Your task to perform on an android device: Turn on the flashlight Image 0: 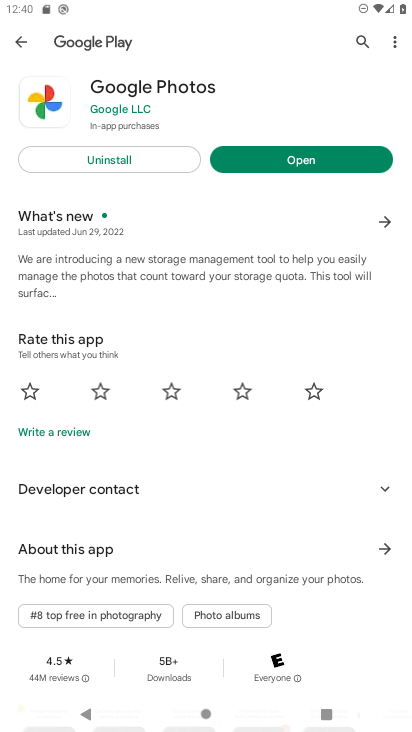
Step 0: press home button
Your task to perform on an android device: Turn on the flashlight Image 1: 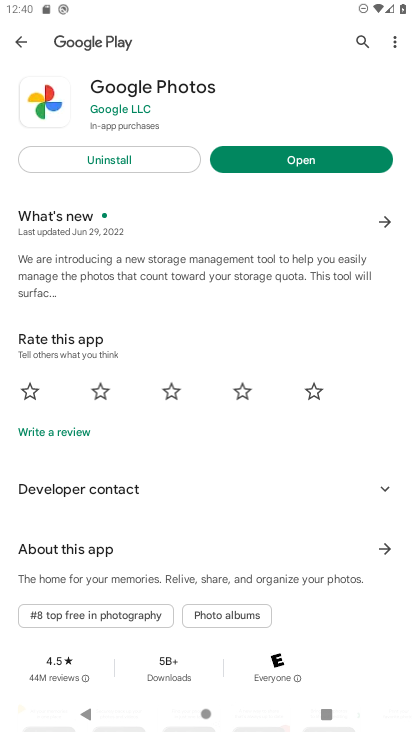
Step 1: press home button
Your task to perform on an android device: Turn on the flashlight Image 2: 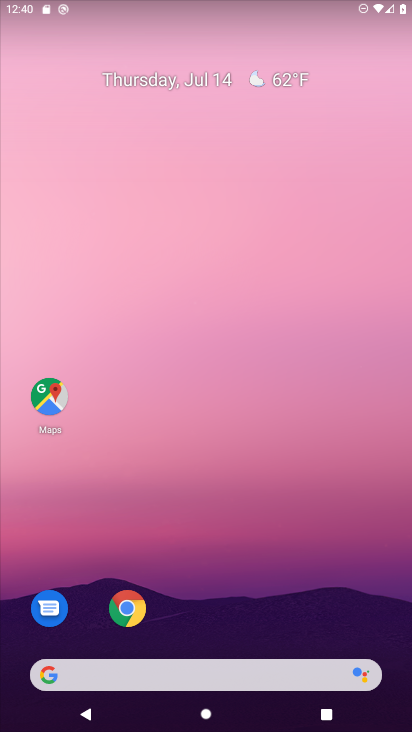
Step 2: drag from (242, 721) to (215, 187)
Your task to perform on an android device: Turn on the flashlight Image 3: 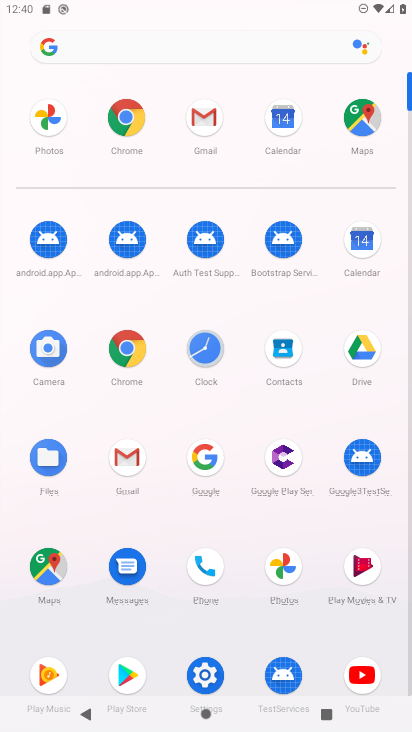
Step 3: click (200, 670)
Your task to perform on an android device: Turn on the flashlight Image 4: 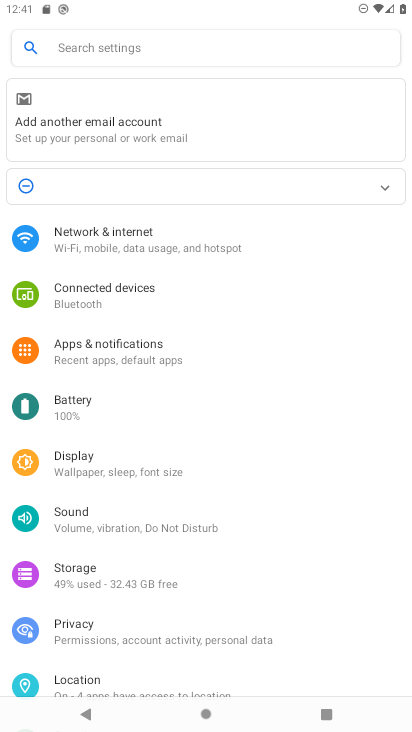
Step 4: task complete